Your task to perform on an android device: turn on translation in the chrome app Image 0: 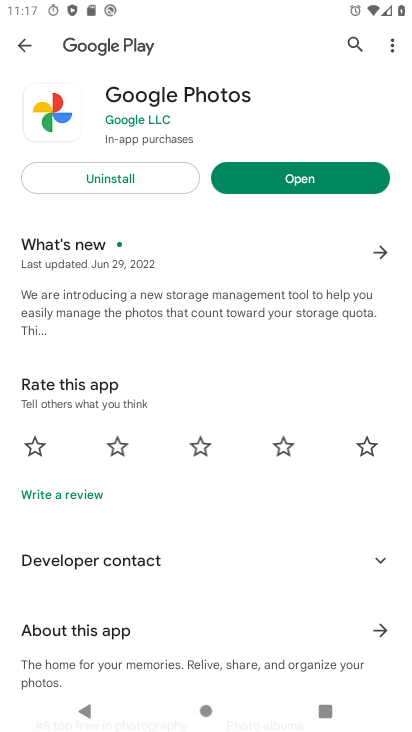
Step 0: press home button
Your task to perform on an android device: turn on translation in the chrome app Image 1: 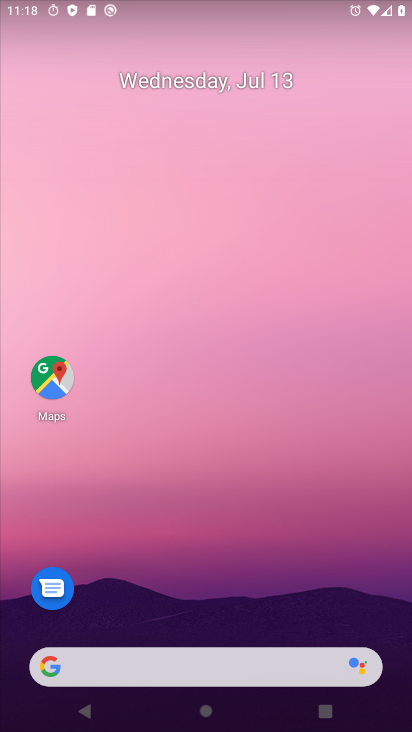
Step 1: drag from (167, 705) to (214, 90)
Your task to perform on an android device: turn on translation in the chrome app Image 2: 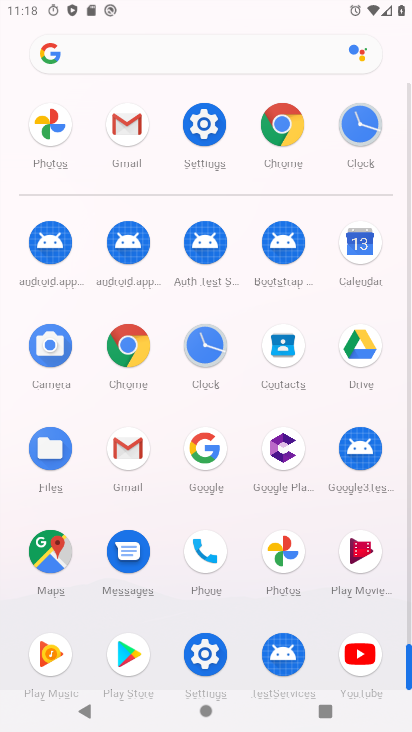
Step 2: click (294, 135)
Your task to perform on an android device: turn on translation in the chrome app Image 3: 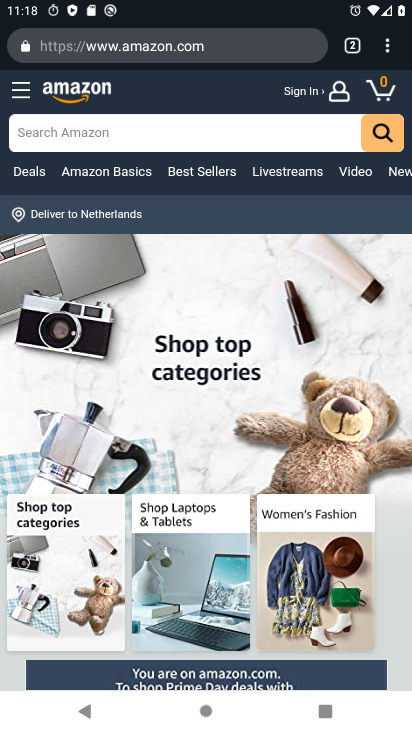
Step 3: click (394, 27)
Your task to perform on an android device: turn on translation in the chrome app Image 4: 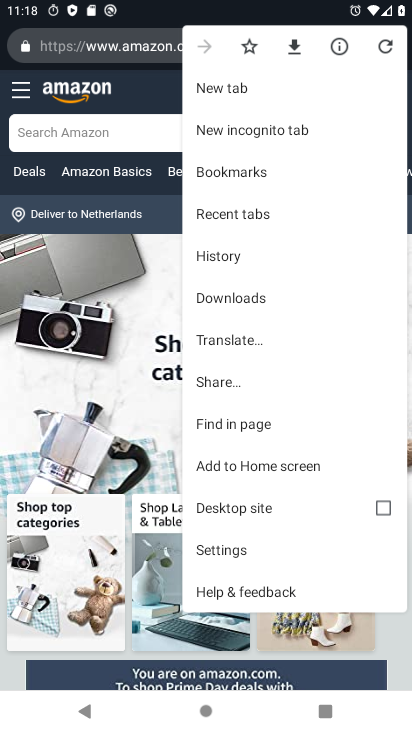
Step 4: click (229, 551)
Your task to perform on an android device: turn on translation in the chrome app Image 5: 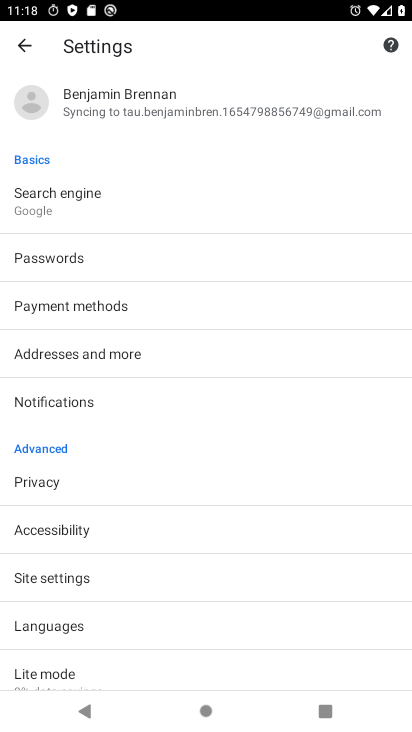
Step 5: click (71, 627)
Your task to perform on an android device: turn on translation in the chrome app Image 6: 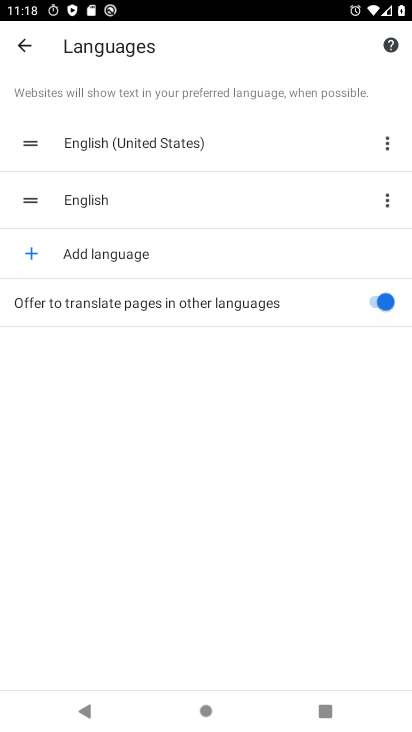
Step 6: task complete